Your task to perform on an android device: Open settings on Google Maps Image 0: 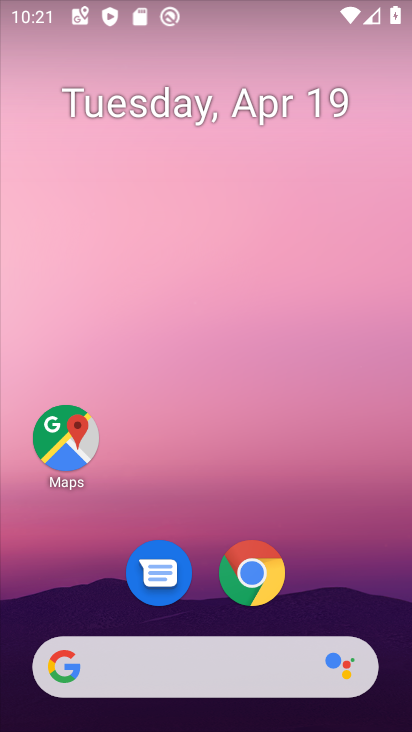
Step 0: click (74, 445)
Your task to perform on an android device: Open settings on Google Maps Image 1: 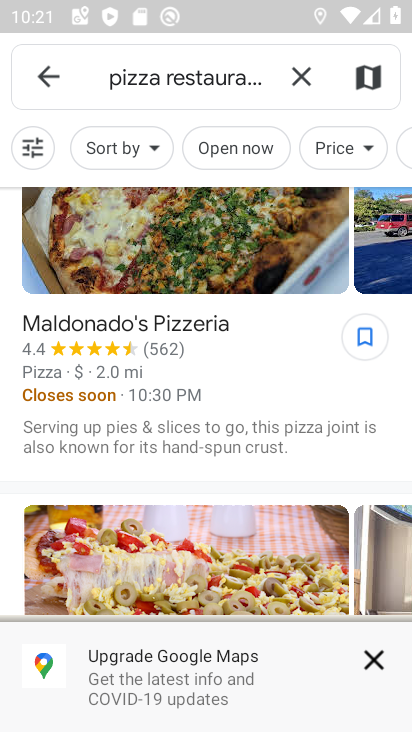
Step 1: click (47, 76)
Your task to perform on an android device: Open settings on Google Maps Image 2: 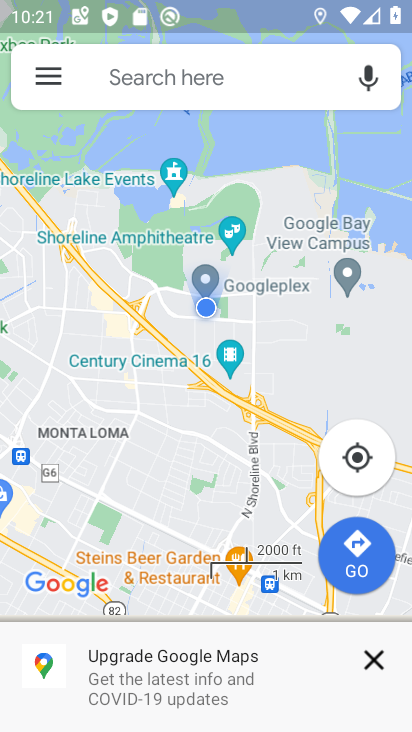
Step 2: click (59, 81)
Your task to perform on an android device: Open settings on Google Maps Image 3: 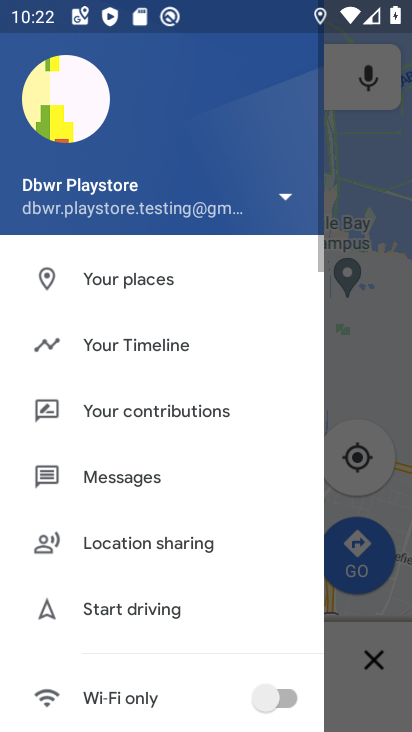
Step 3: drag from (147, 659) to (129, 114)
Your task to perform on an android device: Open settings on Google Maps Image 4: 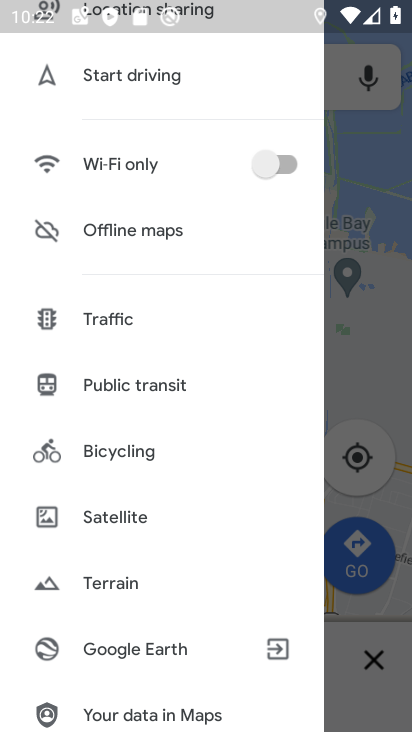
Step 4: drag from (126, 678) to (107, 345)
Your task to perform on an android device: Open settings on Google Maps Image 5: 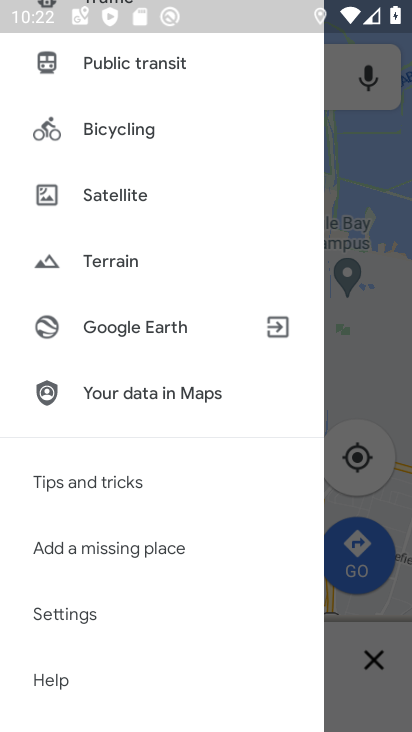
Step 5: click (75, 612)
Your task to perform on an android device: Open settings on Google Maps Image 6: 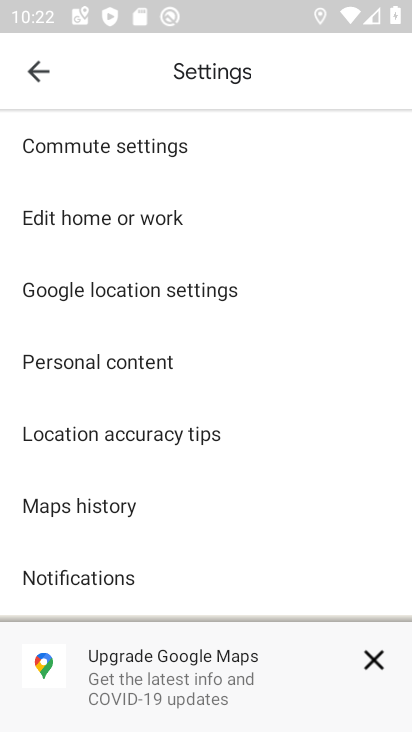
Step 6: task complete